Your task to perform on an android device: Clear the shopping cart on target.com. Add "logitech g933" to the cart on target.com Image 0: 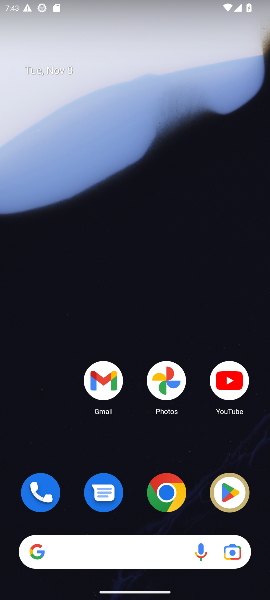
Step 0: click (169, 497)
Your task to perform on an android device: Clear the shopping cart on target.com. Add "logitech g933" to the cart on target.com Image 1: 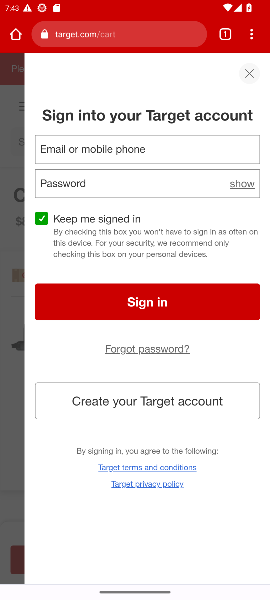
Step 1: click (77, 35)
Your task to perform on an android device: Clear the shopping cart on target.com. Add "logitech g933" to the cart on target.com Image 2: 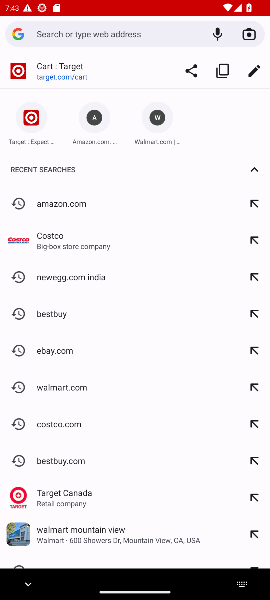
Step 2: type "target.com"
Your task to perform on an android device: Clear the shopping cart on target.com. Add "logitech g933" to the cart on target.com Image 3: 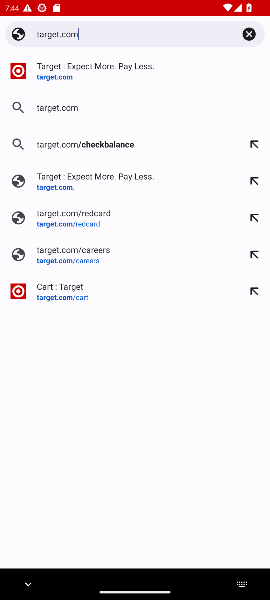
Step 3: press enter
Your task to perform on an android device: Clear the shopping cart on target.com. Add "logitech g933" to the cart on target.com Image 4: 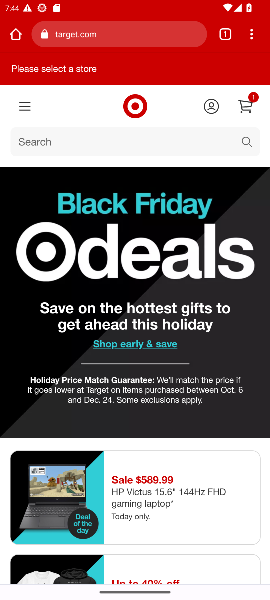
Step 4: click (98, 150)
Your task to perform on an android device: Clear the shopping cart on target.com. Add "logitech g933" to the cart on target.com Image 5: 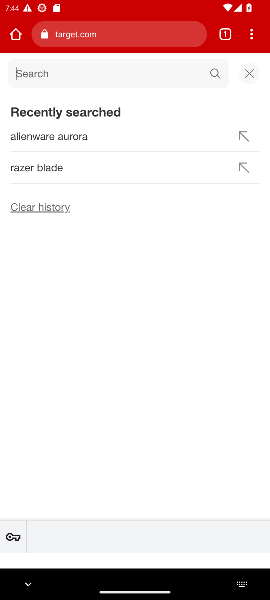
Step 5: type "logitech g933"
Your task to perform on an android device: Clear the shopping cart on target.com. Add "logitech g933" to the cart on target.com Image 6: 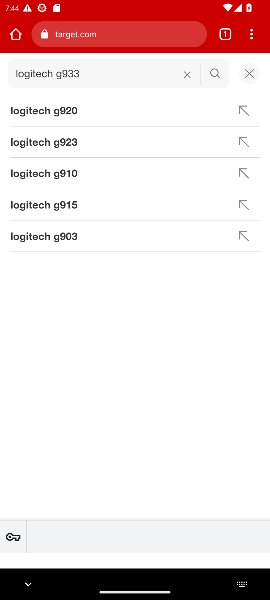
Step 6: press enter
Your task to perform on an android device: Clear the shopping cart on target.com. Add "logitech g933" to the cart on target.com Image 7: 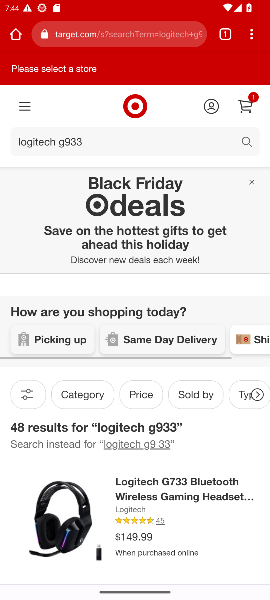
Step 7: click (247, 109)
Your task to perform on an android device: Clear the shopping cart on target.com. Add "logitech g933" to the cart on target.com Image 8: 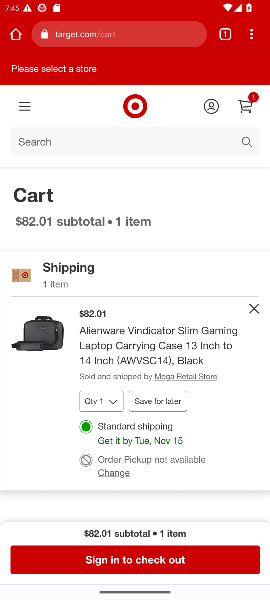
Step 8: click (251, 313)
Your task to perform on an android device: Clear the shopping cart on target.com. Add "logitech g933" to the cart on target.com Image 9: 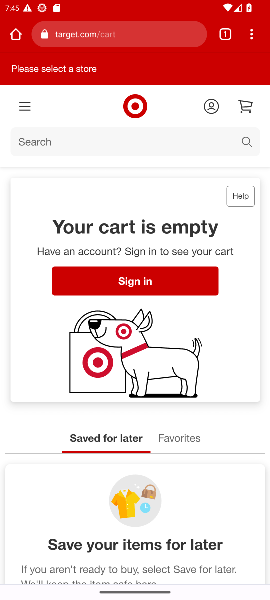
Step 9: click (167, 159)
Your task to perform on an android device: Clear the shopping cart on target.com. Add "logitech g933" to the cart on target.com Image 10: 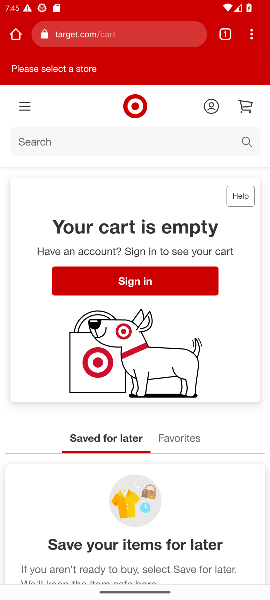
Step 10: click (160, 146)
Your task to perform on an android device: Clear the shopping cart on target.com. Add "logitech g933" to the cart on target.com Image 11: 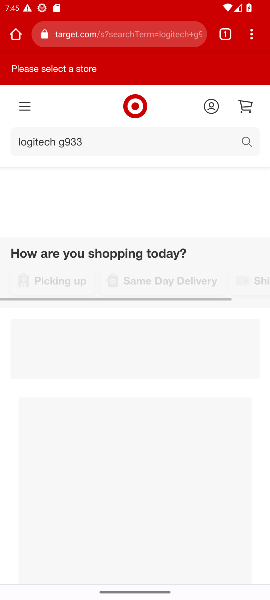
Step 11: click (159, 146)
Your task to perform on an android device: Clear the shopping cart on target.com. Add "logitech g933" to the cart on target.com Image 12: 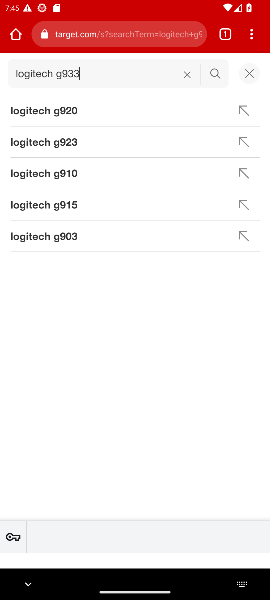
Step 12: click (188, 80)
Your task to perform on an android device: Clear the shopping cart on target.com. Add "logitech g933" to the cart on target.com Image 13: 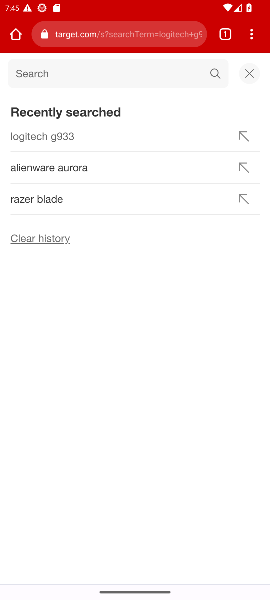
Step 13: click (42, 72)
Your task to perform on an android device: Clear the shopping cart on target.com. Add "logitech g933" to the cart on target.com Image 14: 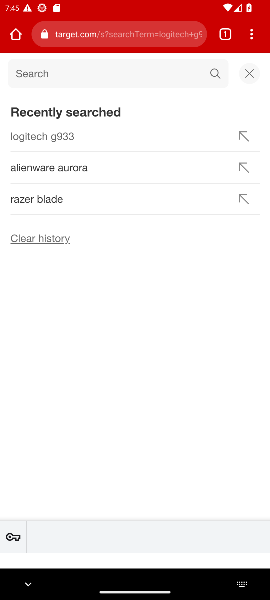
Step 14: type "logitech g933"
Your task to perform on an android device: Clear the shopping cart on target.com. Add "logitech g933" to the cart on target.com Image 15: 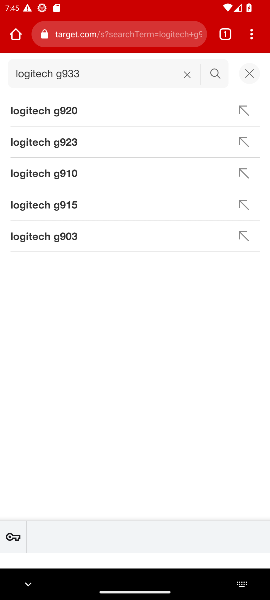
Step 15: press enter
Your task to perform on an android device: Clear the shopping cart on target.com. Add "logitech g933" to the cart on target.com Image 16: 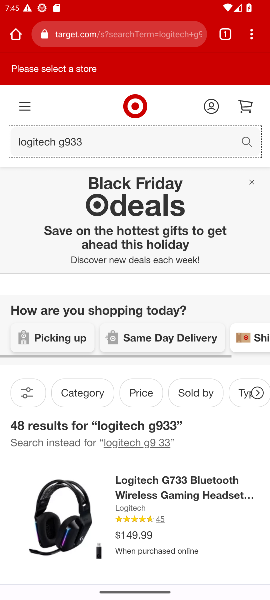
Step 16: click (125, 493)
Your task to perform on an android device: Clear the shopping cart on target.com. Add "logitech g933" to the cart on target.com Image 17: 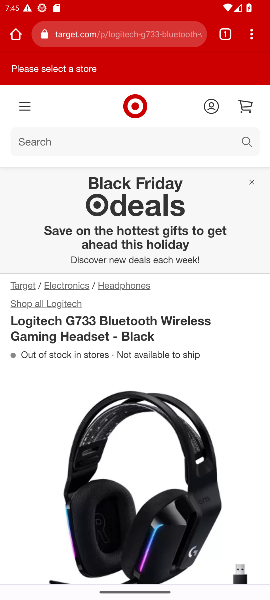
Step 17: drag from (141, 419) to (133, 206)
Your task to perform on an android device: Clear the shopping cart on target.com. Add "logitech g933" to the cart on target.com Image 18: 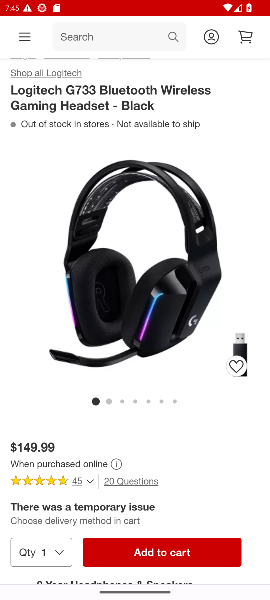
Step 18: click (175, 554)
Your task to perform on an android device: Clear the shopping cart on target.com. Add "logitech g933" to the cart on target.com Image 19: 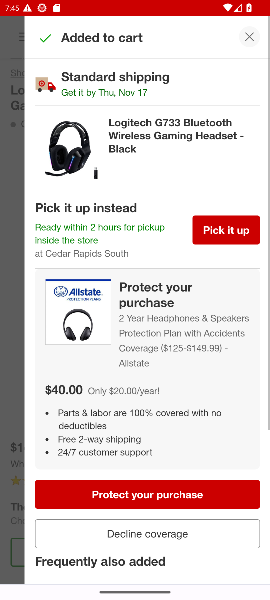
Step 19: click (158, 499)
Your task to perform on an android device: Clear the shopping cart on target.com. Add "logitech g933" to the cart on target.com Image 20: 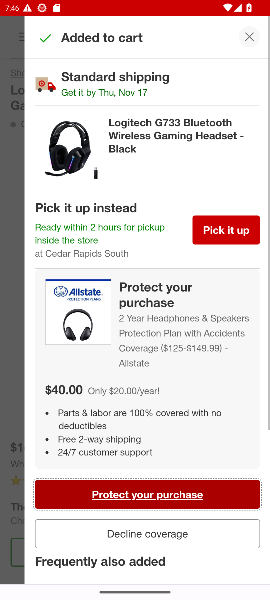
Step 20: click (146, 503)
Your task to perform on an android device: Clear the shopping cart on target.com. Add "logitech g933" to the cart on target.com Image 21: 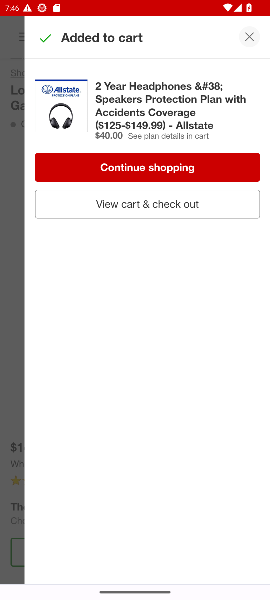
Step 21: click (155, 210)
Your task to perform on an android device: Clear the shopping cart on target.com. Add "logitech g933" to the cart on target.com Image 22: 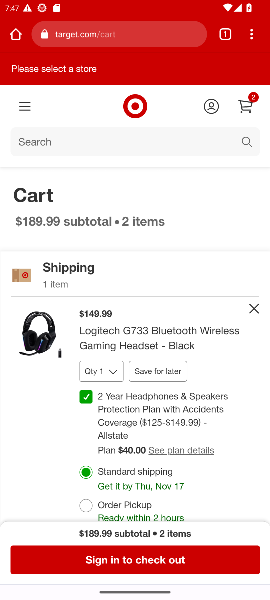
Step 22: task complete